Your task to perform on an android device: turn off wifi Image 0: 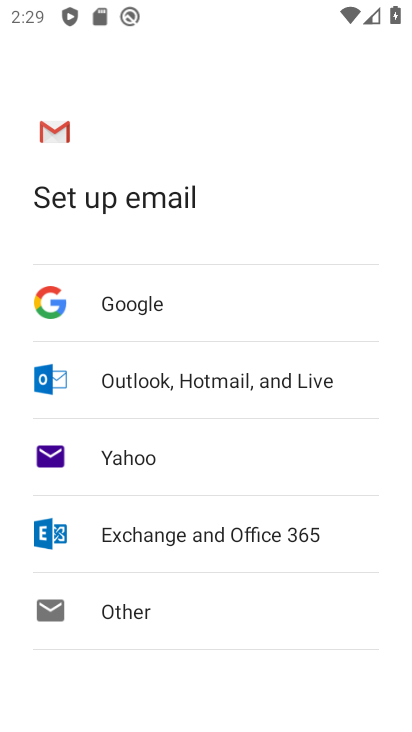
Step 0: press back button
Your task to perform on an android device: turn off wifi Image 1: 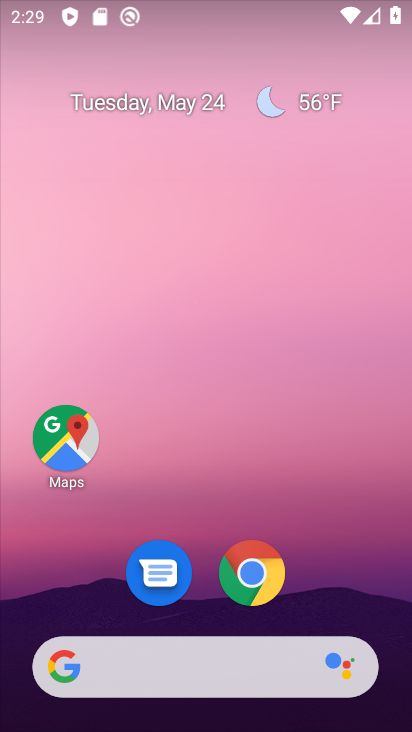
Step 1: drag from (354, 589) to (255, 35)
Your task to perform on an android device: turn off wifi Image 2: 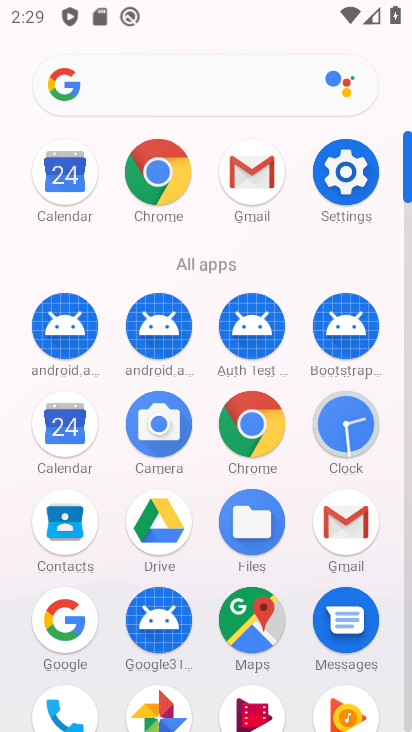
Step 2: drag from (27, 610) to (15, 258)
Your task to perform on an android device: turn off wifi Image 3: 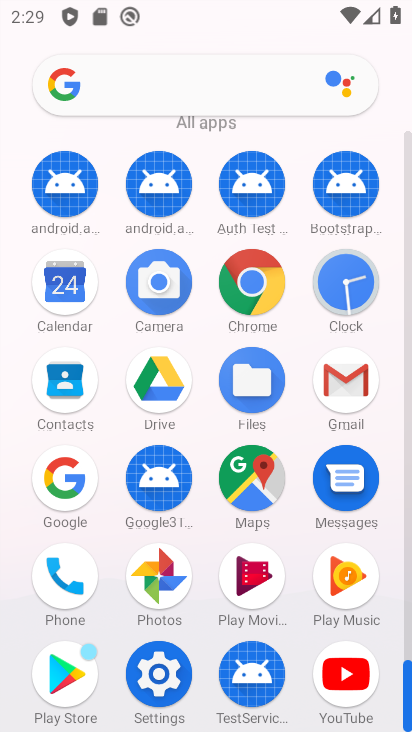
Step 3: click (156, 675)
Your task to perform on an android device: turn off wifi Image 4: 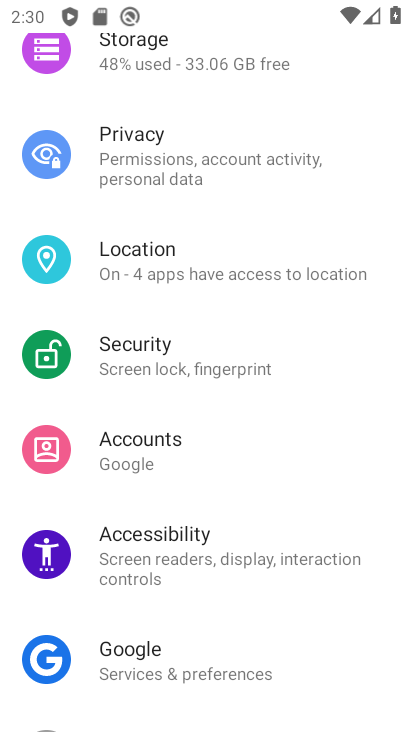
Step 4: drag from (232, 196) to (232, 615)
Your task to perform on an android device: turn off wifi Image 5: 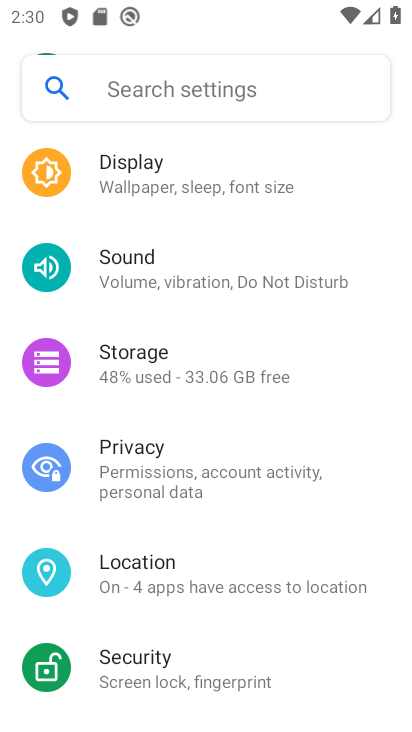
Step 5: drag from (203, 265) to (190, 609)
Your task to perform on an android device: turn off wifi Image 6: 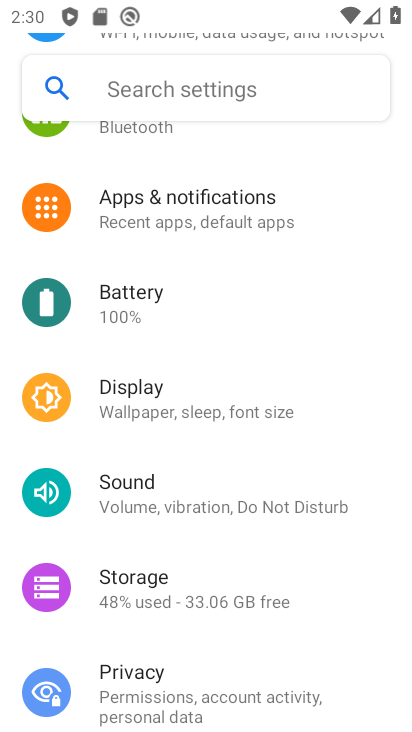
Step 6: drag from (215, 170) to (248, 598)
Your task to perform on an android device: turn off wifi Image 7: 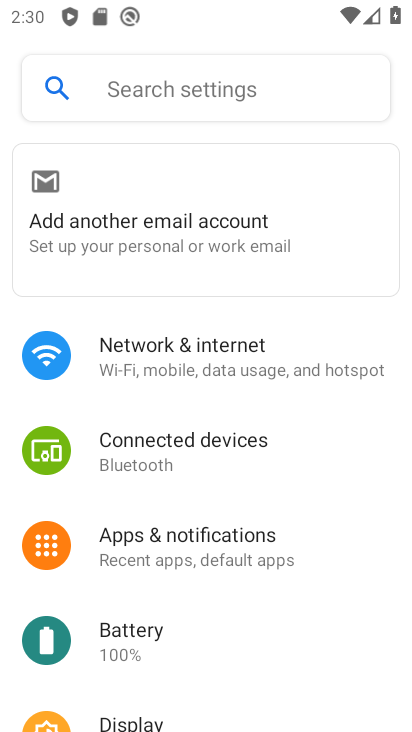
Step 7: click (211, 346)
Your task to perform on an android device: turn off wifi Image 8: 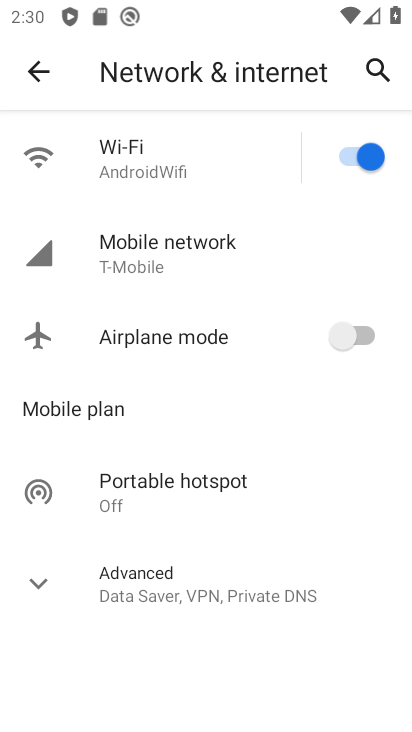
Step 8: click (351, 143)
Your task to perform on an android device: turn off wifi Image 9: 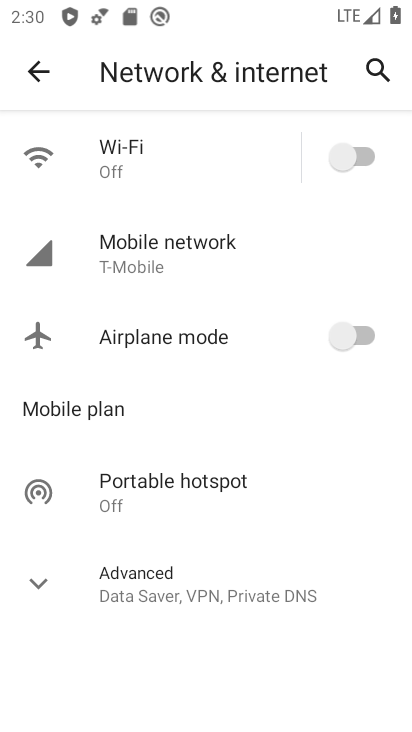
Step 9: click (24, 581)
Your task to perform on an android device: turn off wifi Image 10: 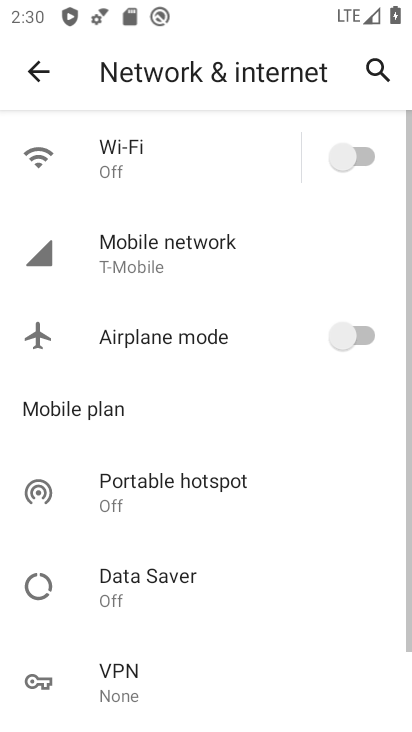
Step 10: task complete